Your task to perform on an android device: What's the weather today? Image 0: 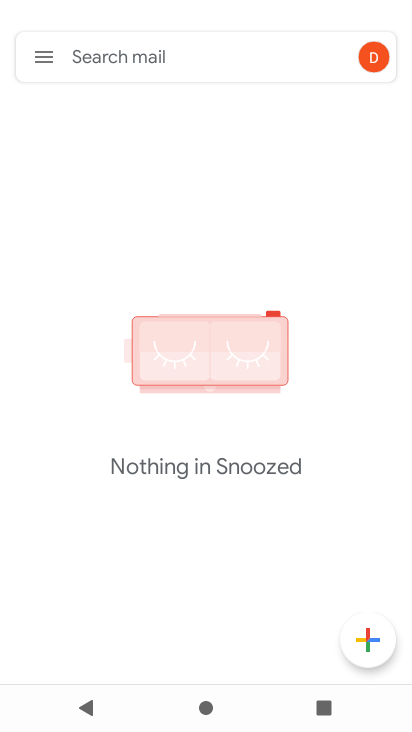
Step 0: click (43, 56)
Your task to perform on an android device: What's the weather today? Image 1: 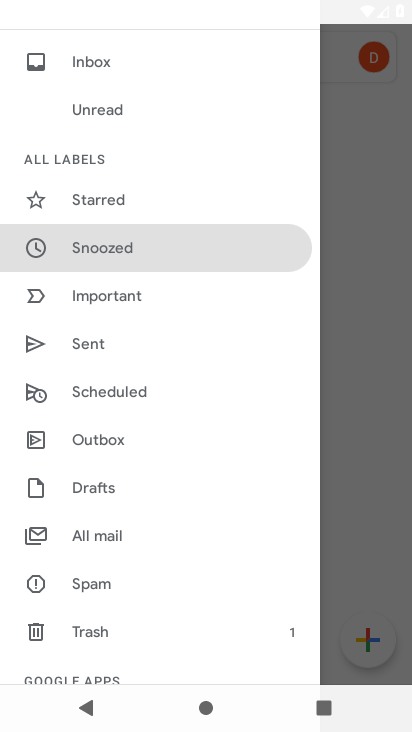
Step 1: press home button
Your task to perform on an android device: What's the weather today? Image 2: 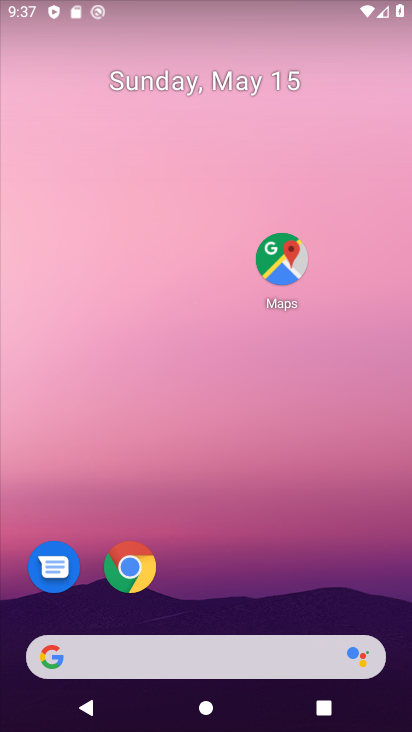
Step 2: drag from (190, 601) to (200, 92)
Your task to perform on an android device: What's the weather today? Image 3: 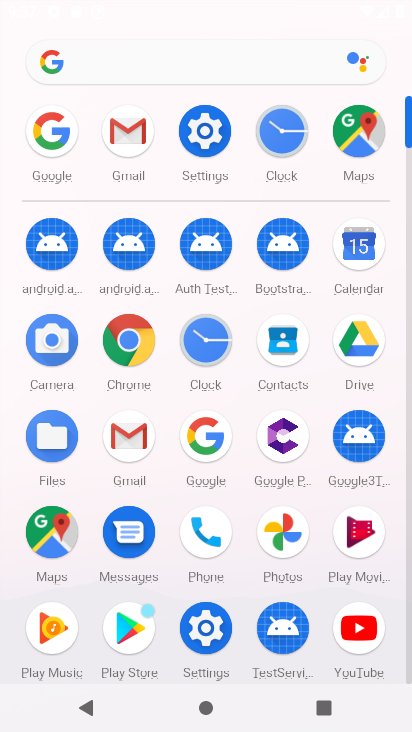
Step 3: click (50, 118)
Your task to perform on an android device: What's the weather today? Image 4: 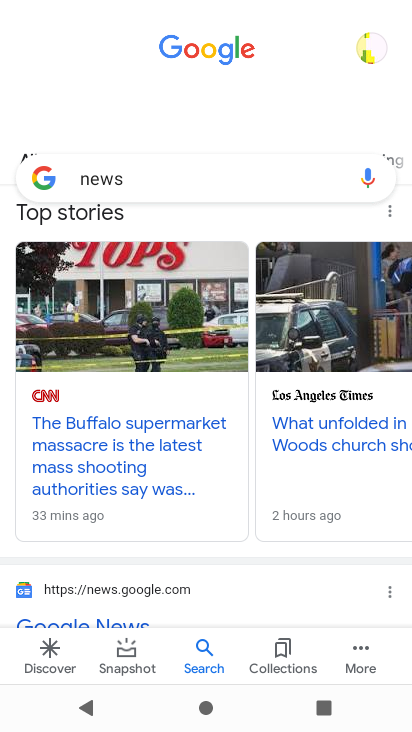
Step 4: click (258, 168)
Your task to perform on an android device: What's the weather today? Image 5: 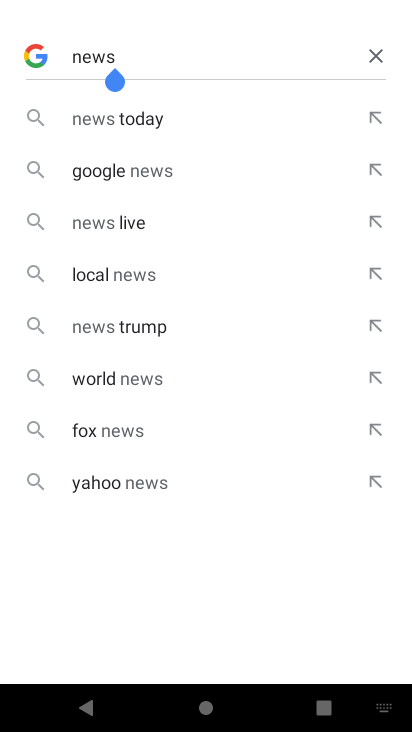
Step 5: click (388, 50)
Your task to perform on an android device: What's the weather today? Image 6: 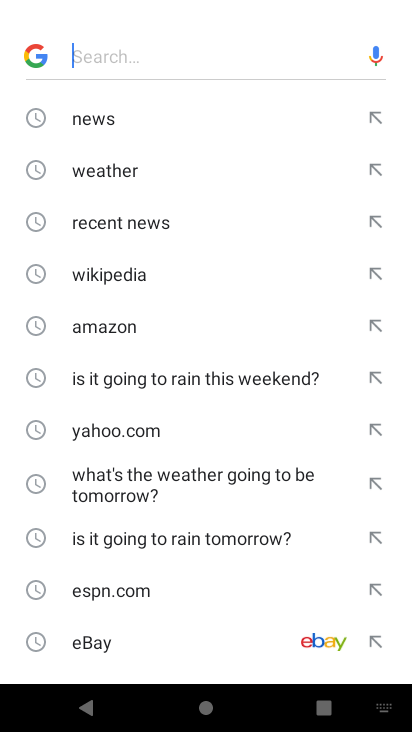
Step 6: click (131, 168)
Your task to perform on an android device: What's the weather today? Image 7: 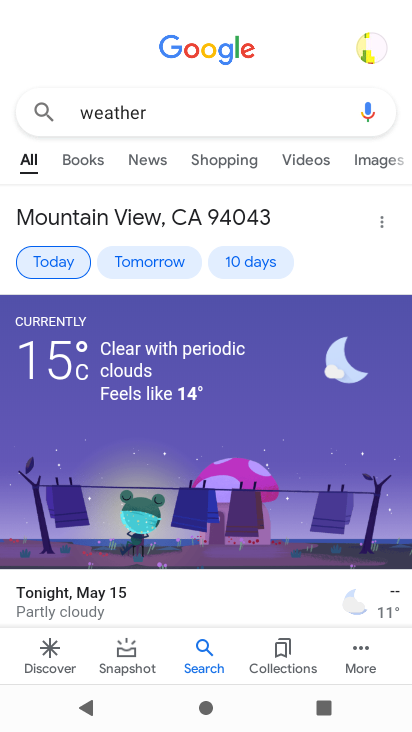
Step 7: task complete